Your task to perform on an android device: Open calendar and show me the third week of next month Image 0: 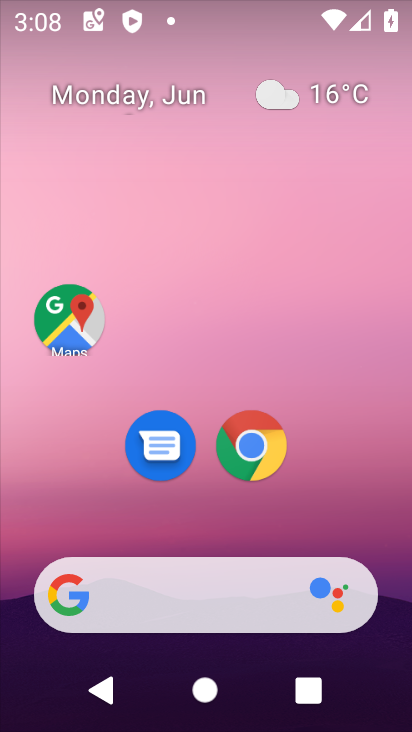
Step 0: drag from (342, 542) to (302, 258)
Your task to perform on an android device: Open calendar and show me the third week of next month Image 1: 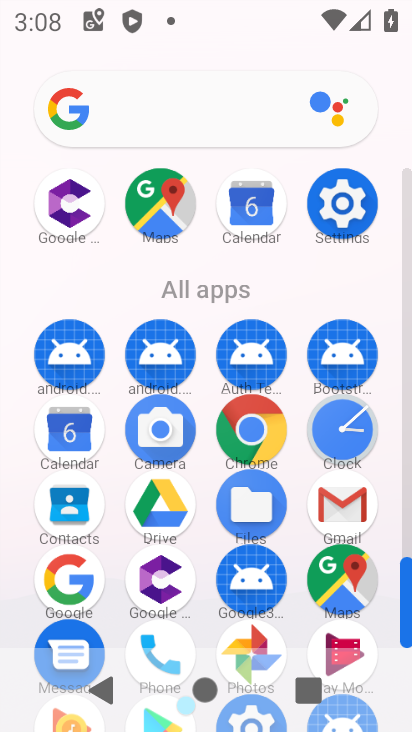
Step 1: click (61, 433)
Your task to perform on an android device: Open calendar and show me the third week of next month Image 2: 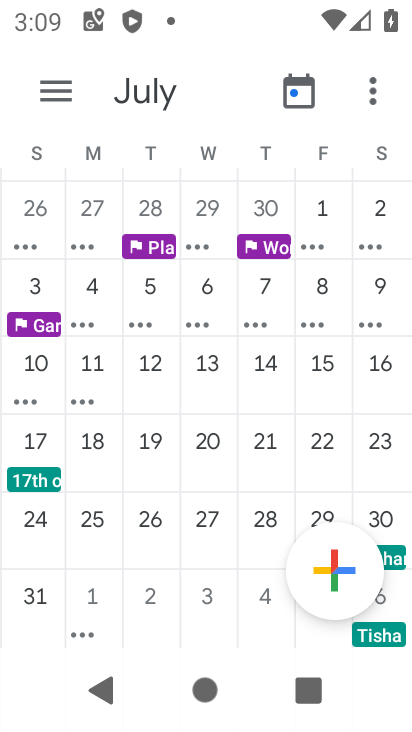
Step 2: task complete